Your task to perform on an android device: turn off data saver in the chrome app Image 0: 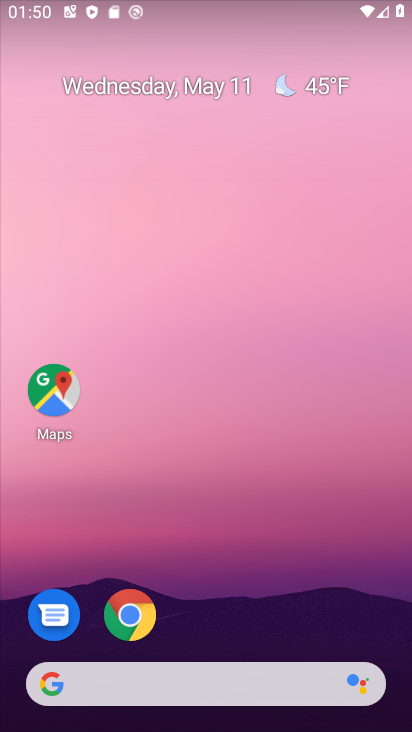
Step 0: drag from (387, 593) to (366, 206)
Your task to perform on an android device: turn off data saver in the chrome app Image 1: 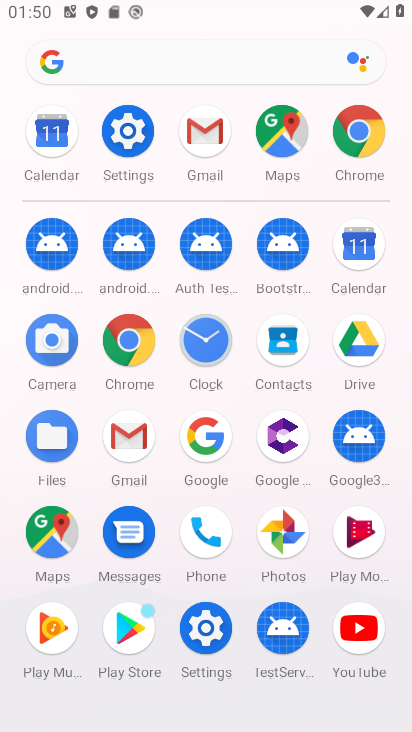
Step 1: click (121, 362)
Your task to perform on an android device: turn off data saver in the chrome app Image 2: 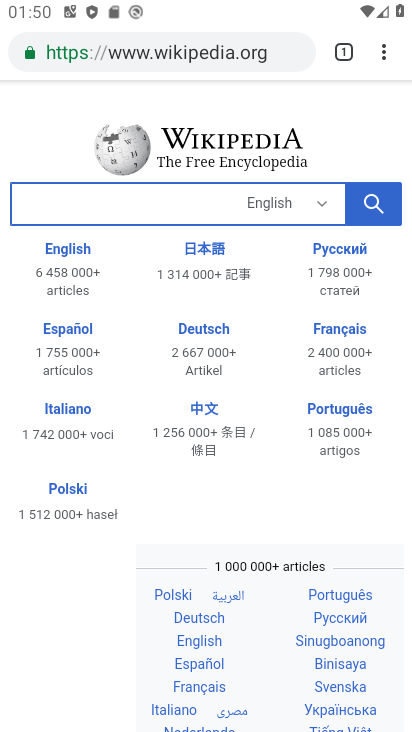
Step 2: drag from (393, 65) to (236, 623)
Your task to perform on an android device: turn off data saver in the chrome app Image 3: 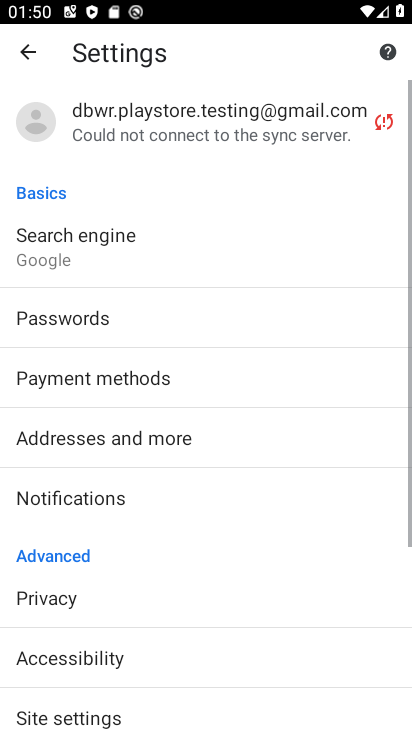
Step 3: drag from (220, 712) to (275, 301)
Your task to perform on an android device: turn off data saver in the chrome app Image 4: 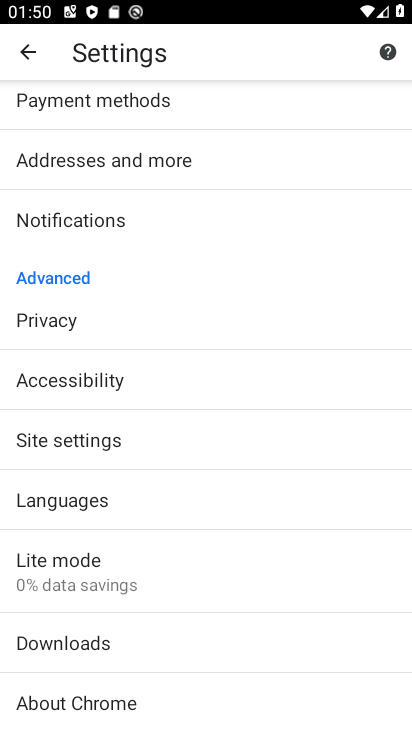
Step 4: click (152, 581)
Your task to perform on an android device: turn off data saver in the chrome app Image 5: 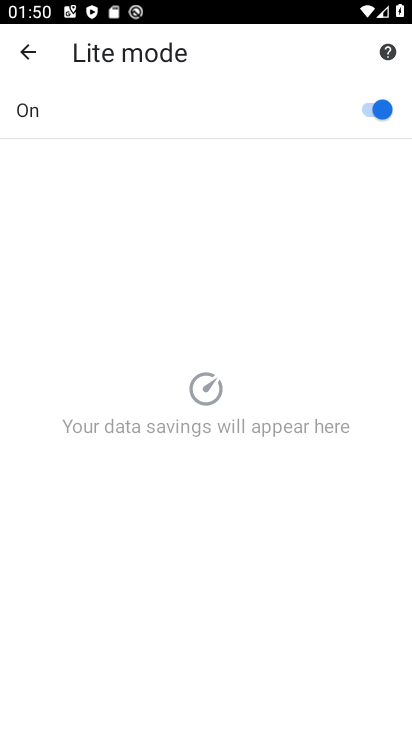
Step 5: click (365, 113)
Your task to perform on an android device: turn off data saver in the chrome app Image 6: 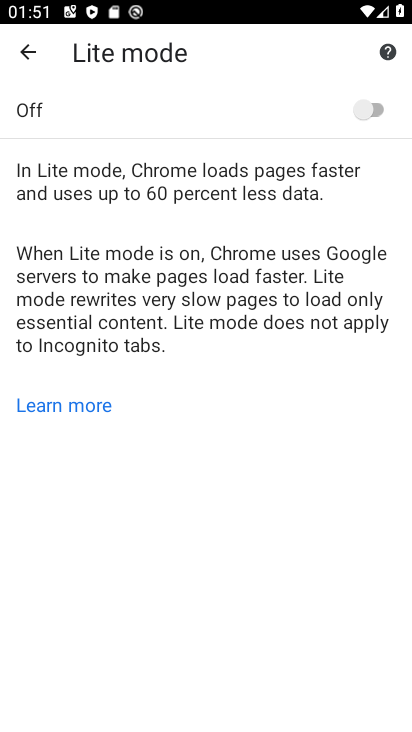
Step 6: task complete